Your task to perform on an android device: turn vacation reply on in the gmail app Image 0: 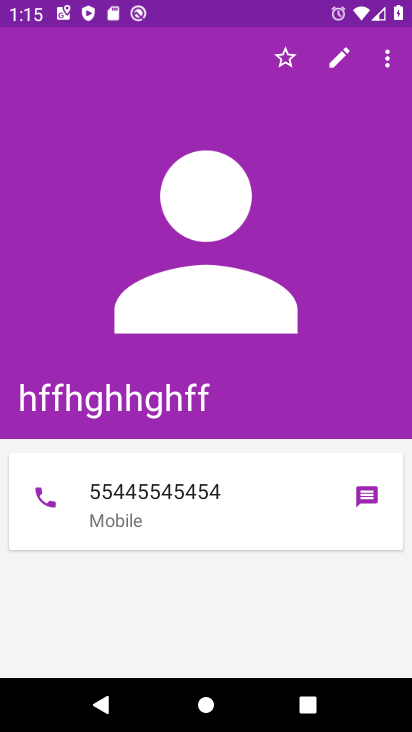
Step 0: press home button
Your task to perform on an android device: turn vacation reply on in the gmail app Image 1: 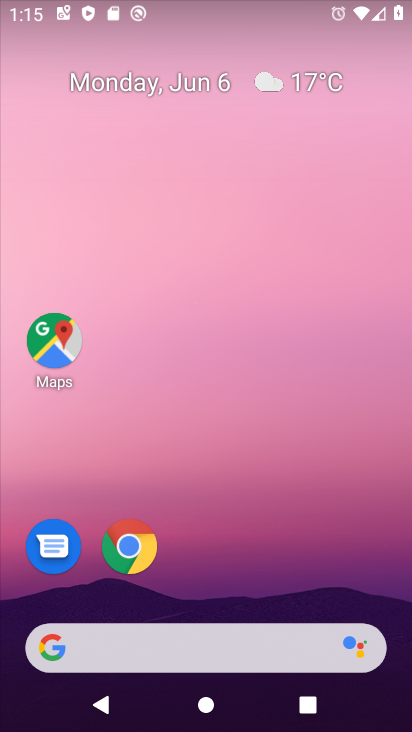
Step 1: drag from (264, 575) to (219, 196)
Your task to perform on an android device: turn vacation reply on in the gmail app Image 2: 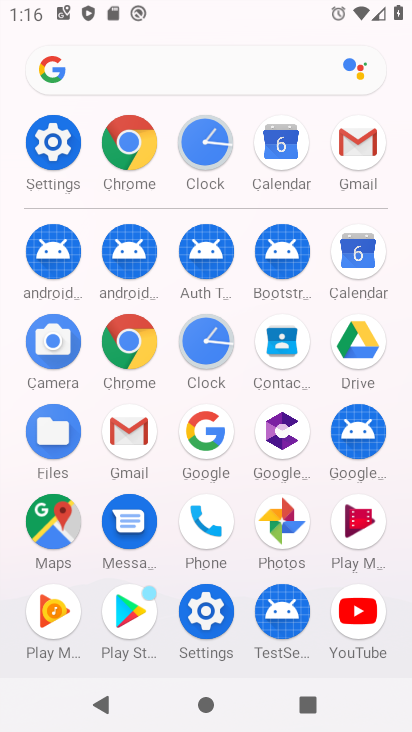
Step 2: click (348, 148)
Your task to perform on an android device: turn vacation reply on in the gmail app Image 3: 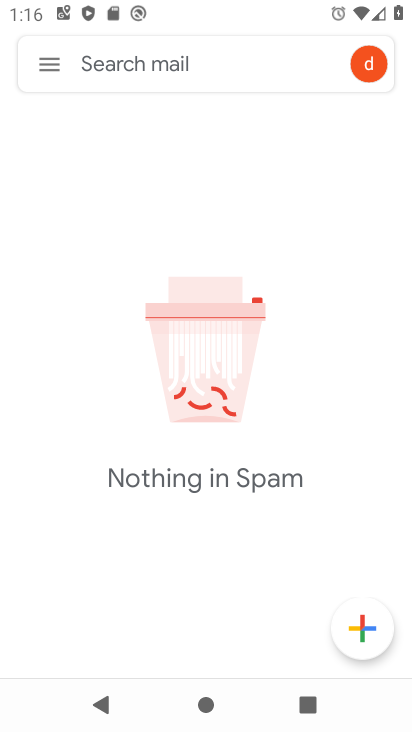
Step 3: click (43, 61)
Your task to perform on an android device: turn vacation reply on in the gmail app Image 4: 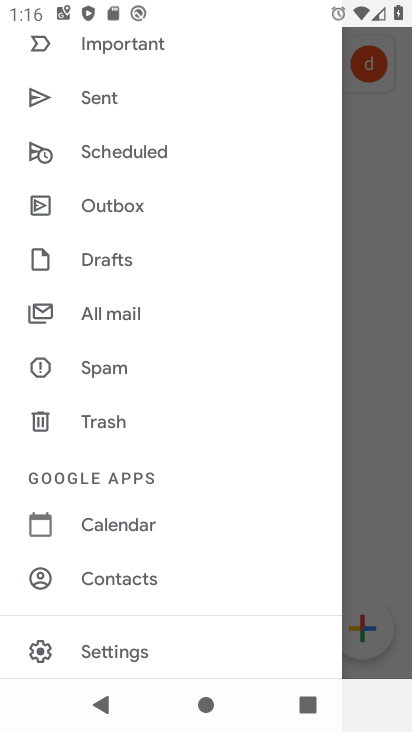
Step 4: click (100, 657)
Your task to perform on an android device: turn vacation reply on in the gmail app Image 5: 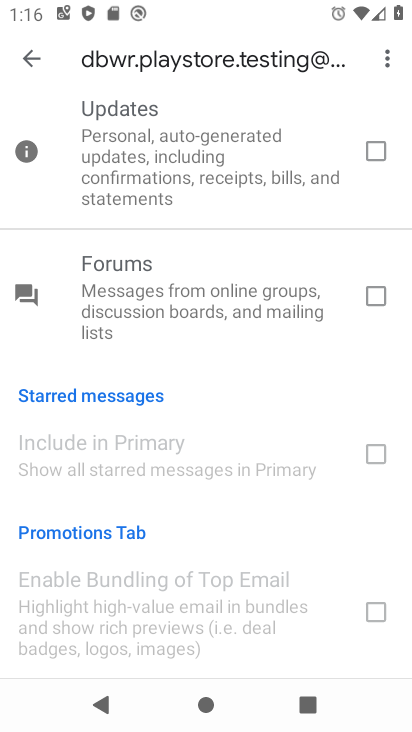
Step 5: click (29, 54)
Your task to perform on an android device: turn vacation reply on in the gmail app Image 6: 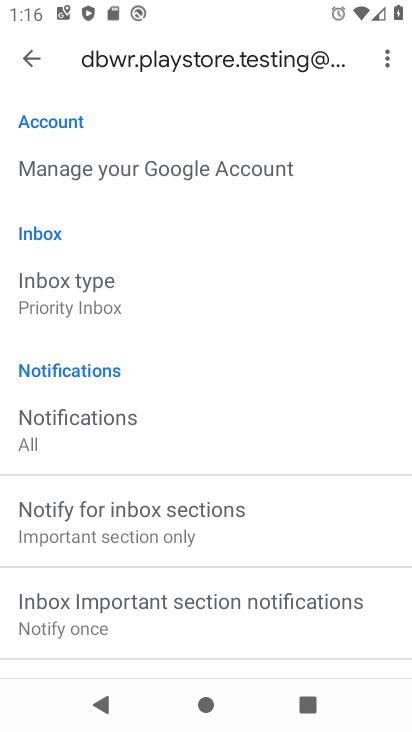
Step 6: drag from (317, 527) to (250, 146)
Your task to perform on an android device: turn vacation reply on in the gmail app Image 7: 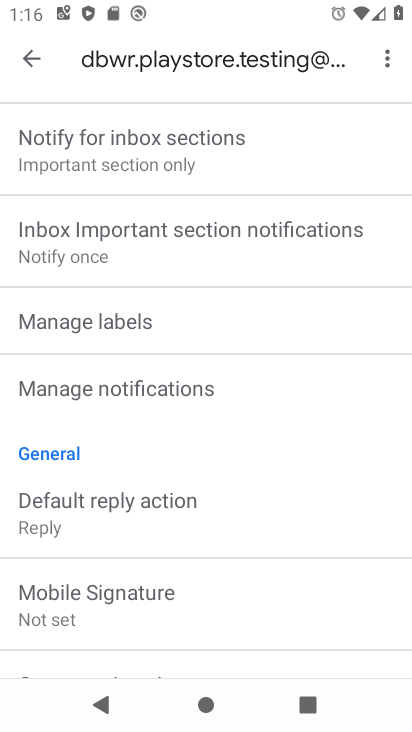
Step 7: drag from (337, 648) to (299, 209)
Your task to perform on an android device: turn vacation reply on in the gmail app Image 8: 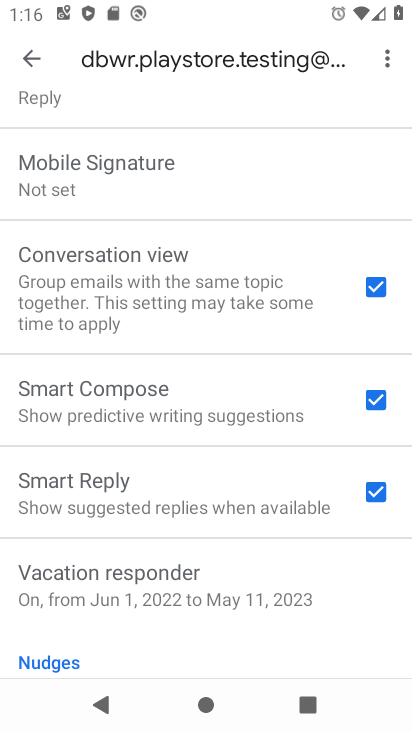
Step 8: click (180, 592)
Your task to perform on an android device: turn vacation reply on in the gmail app Image 9: 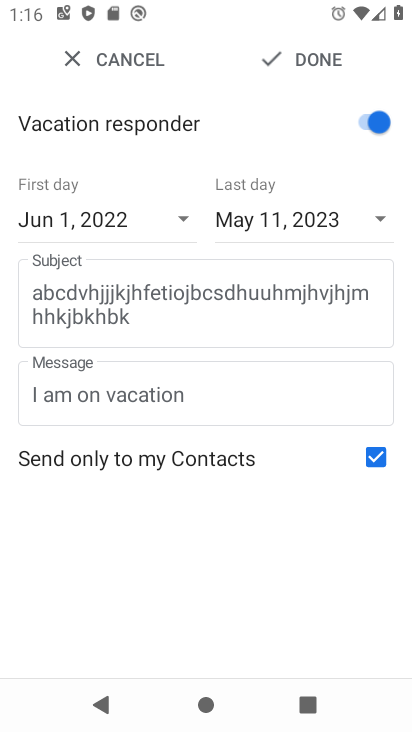
Step 9: task complete